Your task to perform on an android device: Go to Yahoo.com Image 0: 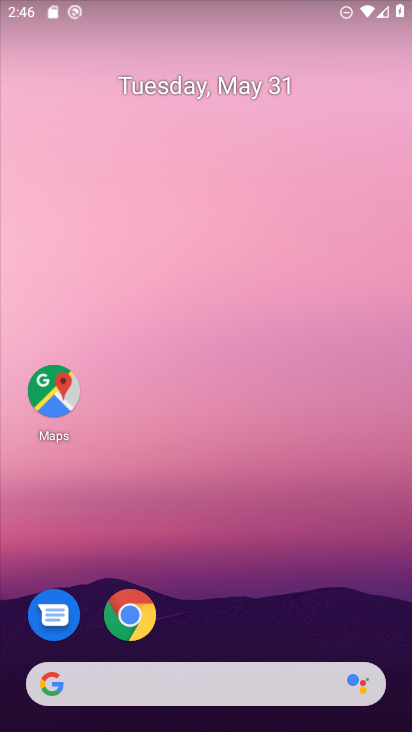
Step 0: drag from (290, 717) to (180, 130)
Your task to perform on an android device: Go to Yahoo.com Image 1: 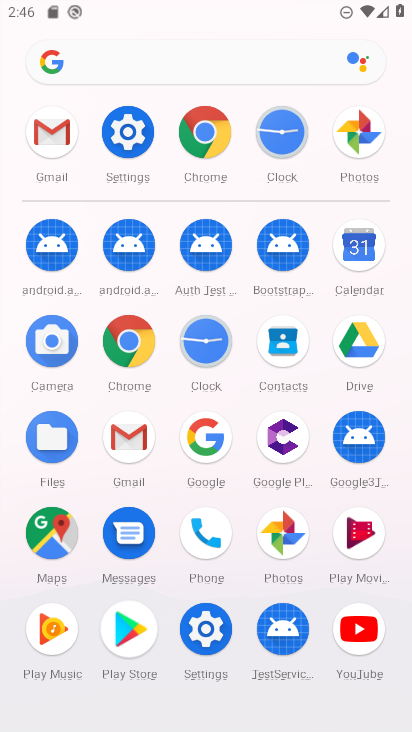
Step 1: click (207, 135)
Your task to perform on an android device: Go to Yahoo.com Image 2: 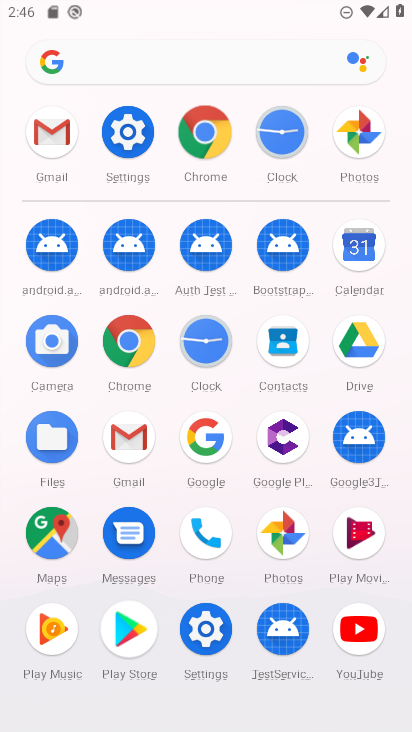
Step 2: click (207, 135)
Your task to perform on an android device: Go to Yahoo.com Image 3: 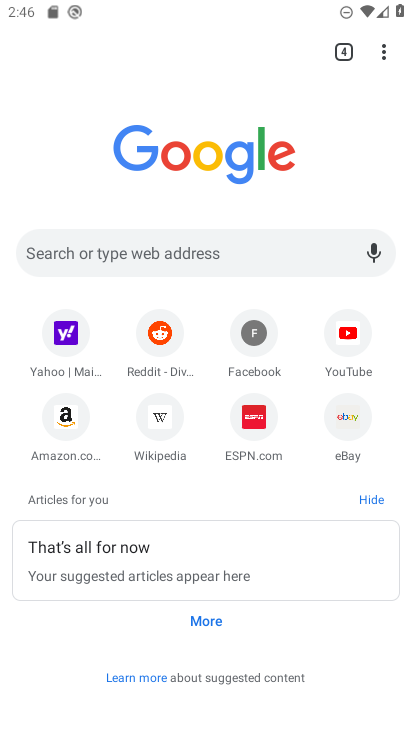
Step 3: click (62, 338)
Your task to perform on an android device: Go to Yahoo.com Image 4: 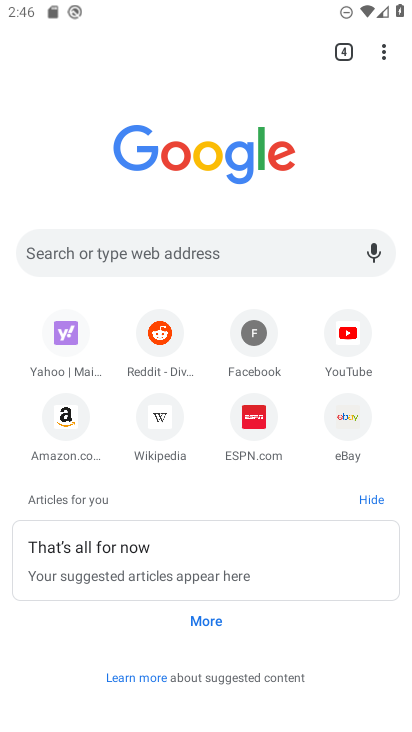
Step 4: click (61, 337)
Your task to perform on an android device: Go to Yahoo.com Image 5: 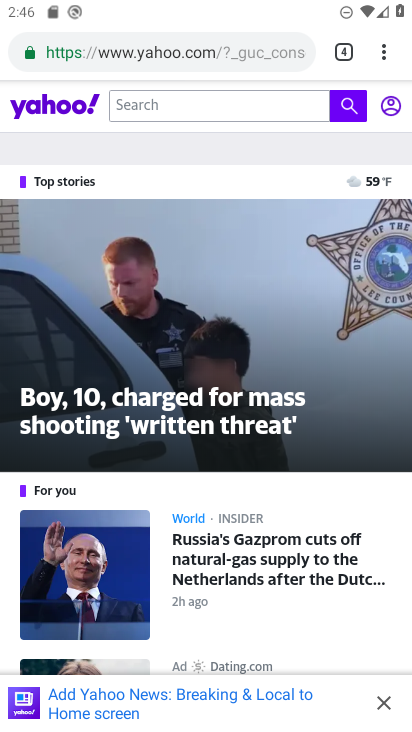
Step 5: task complete